Your task to perform on an android device: Show me the best rated power washer on Home Depot. Image 0: 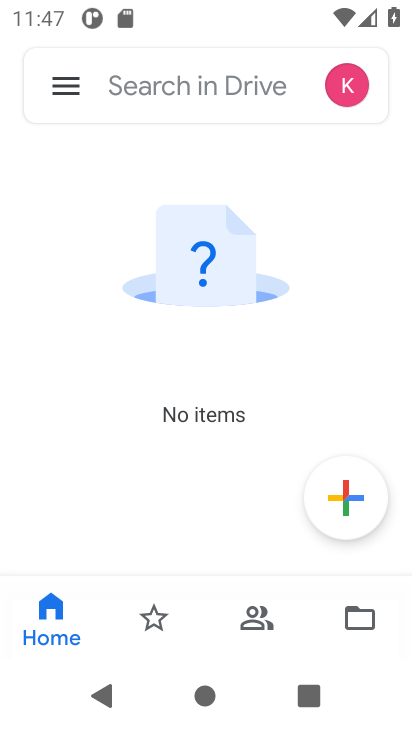
Step 0: task complete